Your task to perform on an android device: turn pop-ups off in chrome Image 0: 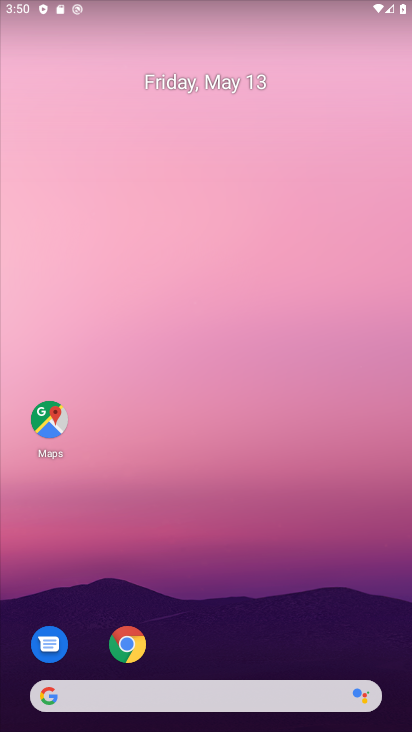
Step 0: drag from (286, 621) to (266, 480)
Your task to perform on an android device: turn pop-ups off in chrome Image 1: 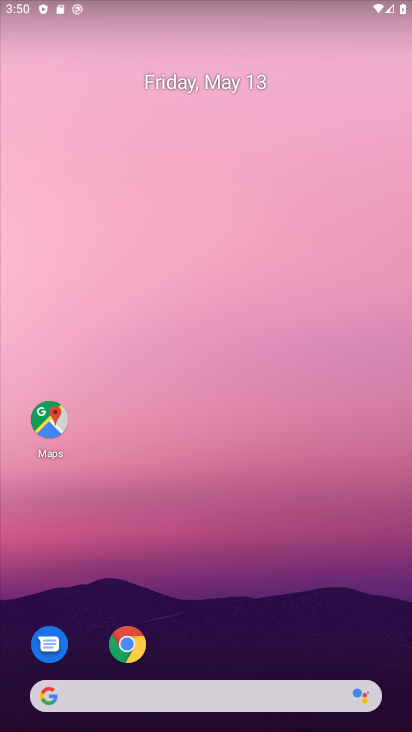
Step 1: click (124, 641)
Your task to perform on an android device: turn pop-ups off in chrome Image 2: 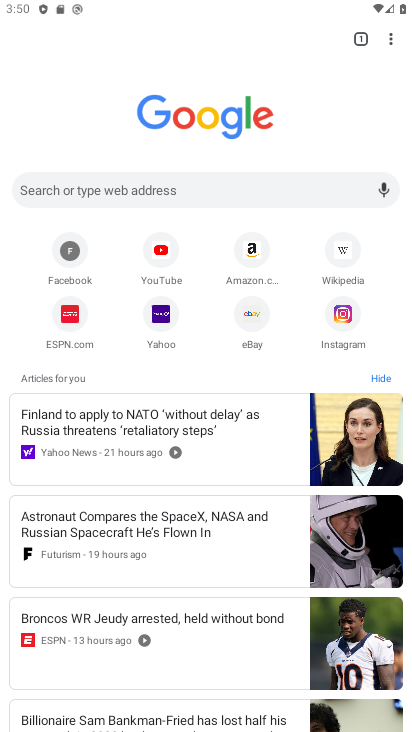
Step 2: click (388, 35)
Your task to perform on an android device: turn pop-ups off in chrome Image 3: 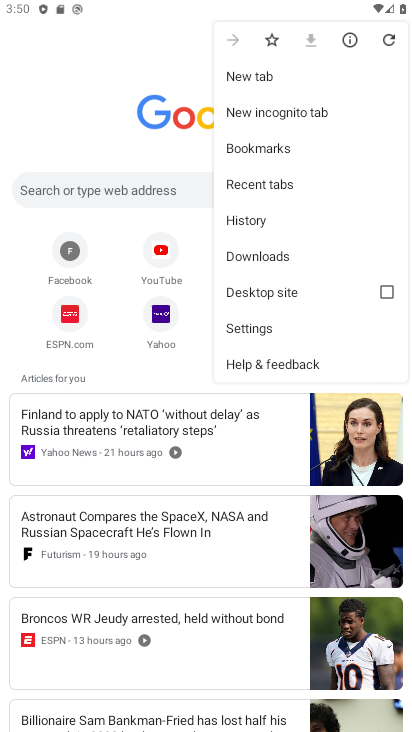
Step 3: click (248, 321)
Your task to perform on an android device: turn pop-ups off in chrome Image 4: 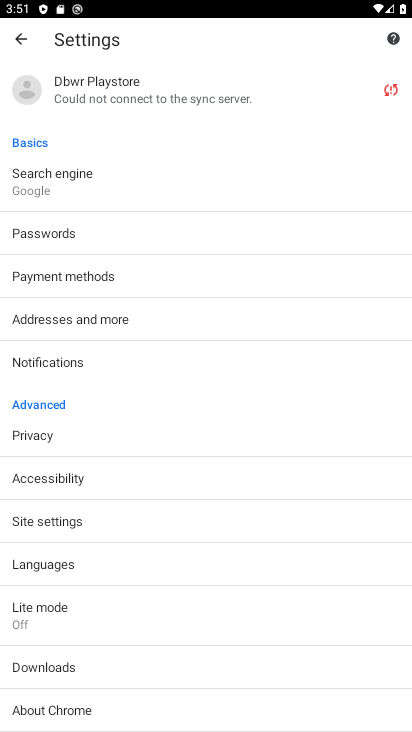
Step 4: drag from (193, 601) to (167, 455)
Your task to perform on an android device: turn pop-ups off in chrome Image 5: 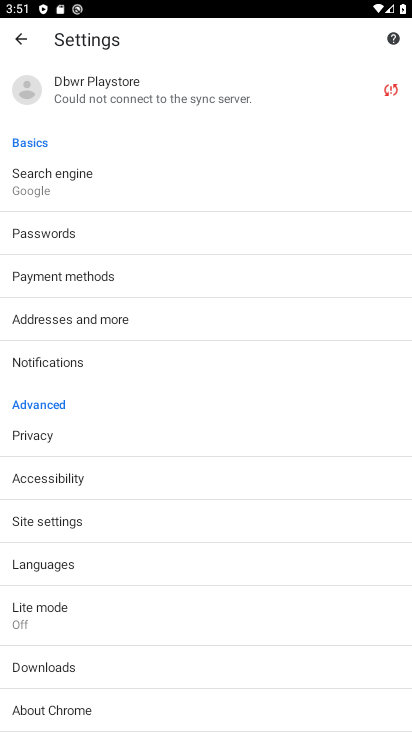
Step 5: click (169, 509)
Your task to perform on an android device: turn pop-ups off in chrome Image 6: 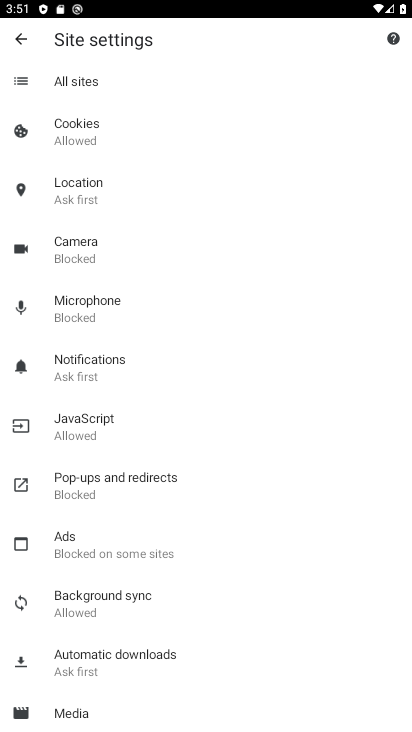
Step 6: click (118, 479)
Your task to perform on an android device: turn pop-ups off in chrome Image 7: 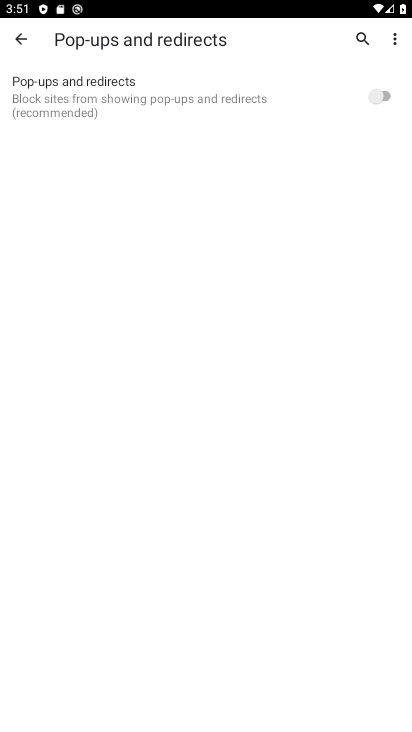
Step 7: task complete